Your task to perform on an android device: Open Youtube and go to the subscriptions tab Image 0: 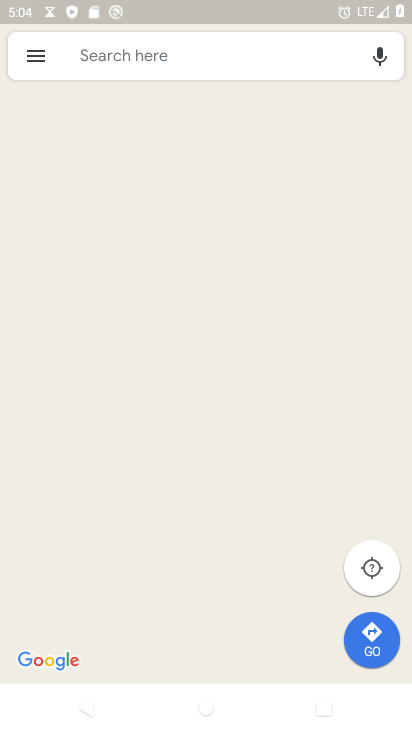
Step 0: press home button
Your task to perform on an android device: Open Youtube and go to the subscriptions tab Image 1: 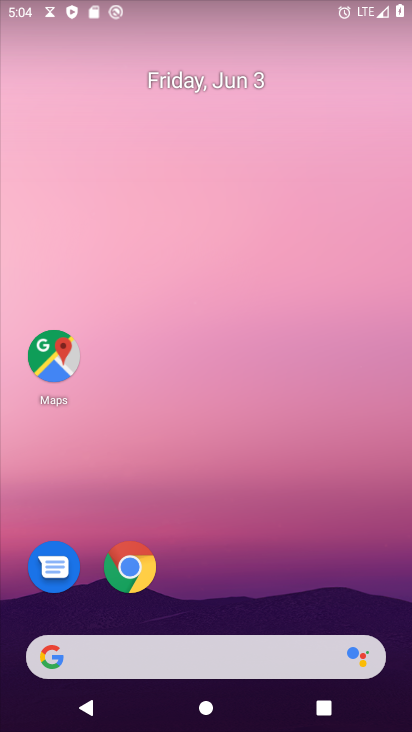
Step 1: drag from (255, 546) to (112, 98)
Your task to perform on an android device: Open Youtube and go to the subscriptions tab Image 2: 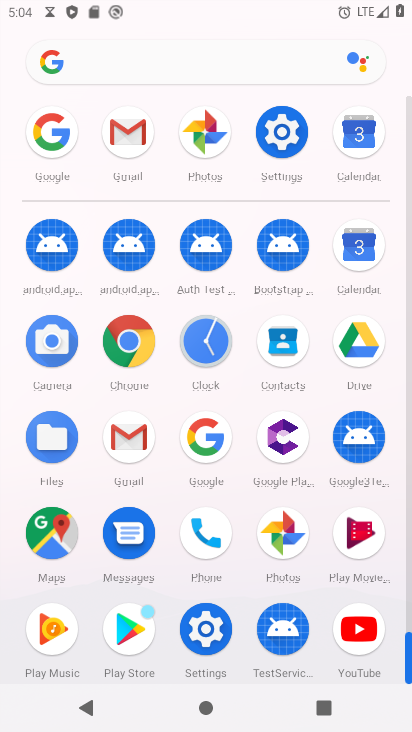
Step 2: click (360, 631)
Your task to perform on an android device: Open Youtube and go to the subscriptions tab Image 3: 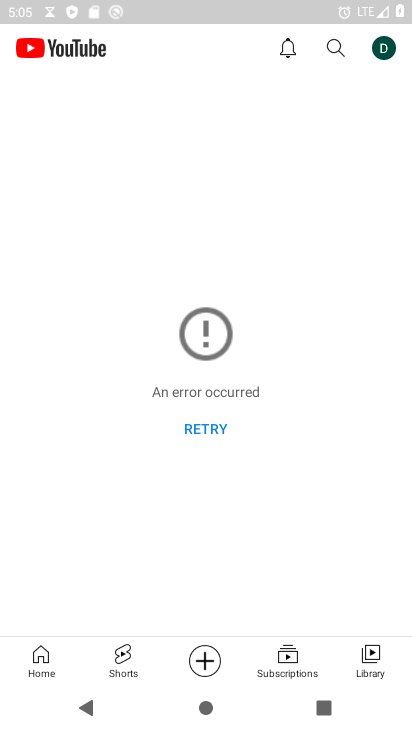
Step 3: click (219, 424)
Your task to perform on an android device: Open Youtube and go to the subscriptions tab Image 4: 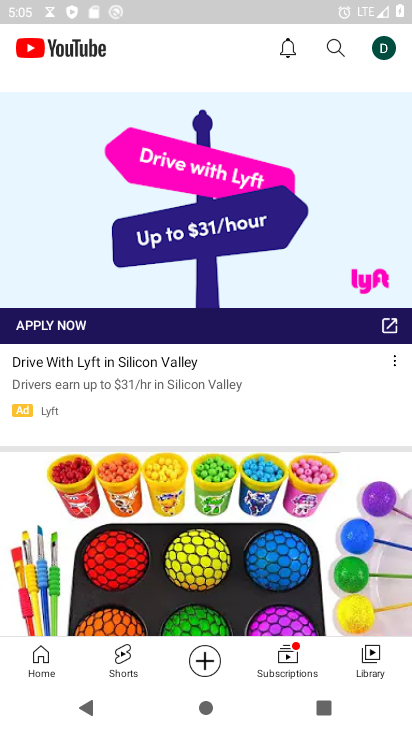
Step 4: click (288, 650)
Your task to perform on an android device: Open Youtube and go to the subscriptions tab Image 5: 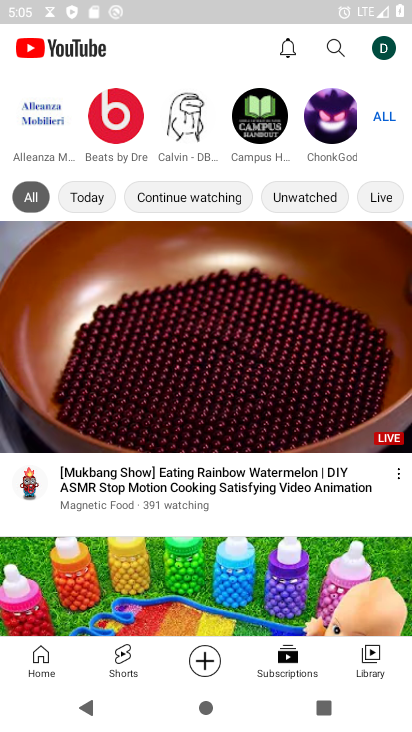
Step 5: task complete